Your task to perform on an android device: What's on my calendar today? Image 0: 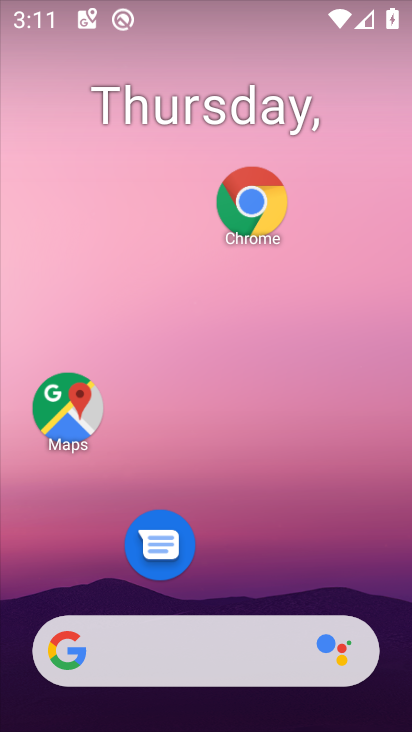
Step 0: drag from (228, 595) to (276, 200)
Your task to perform on an android device: What's on my calendar today? Image 1: 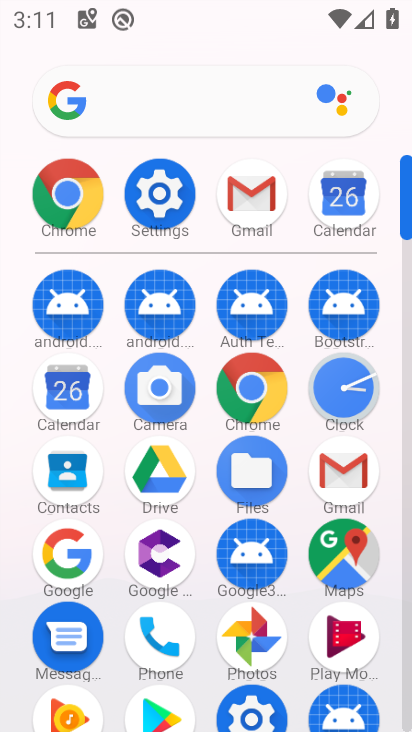
Step 1: click (327, 194)
Your task to perform on an android device: What's on my calendar today? Image 2: 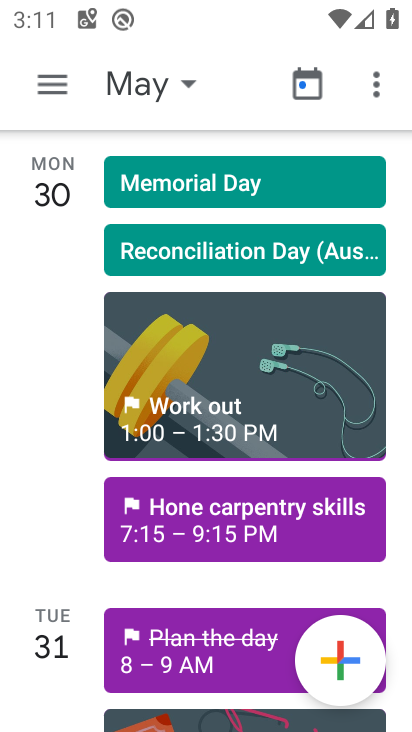
Step 2: click (165, 79)
Your task to perform on an android device: What's on my calendar today? Image 3: 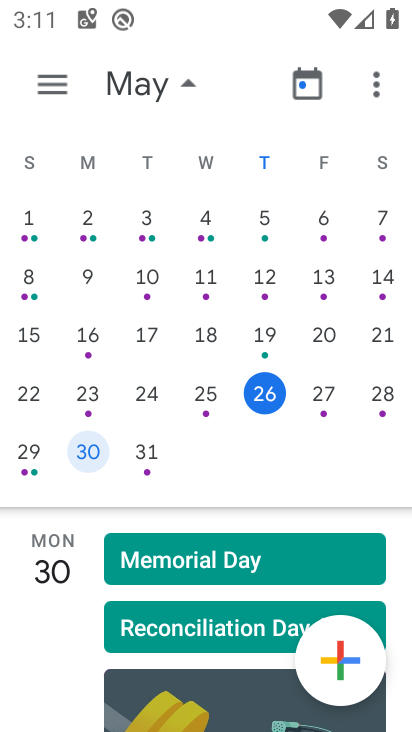
Step 3: click (256, 393)
Your task to perform on an android device: What's on my calendar today? Image 4: 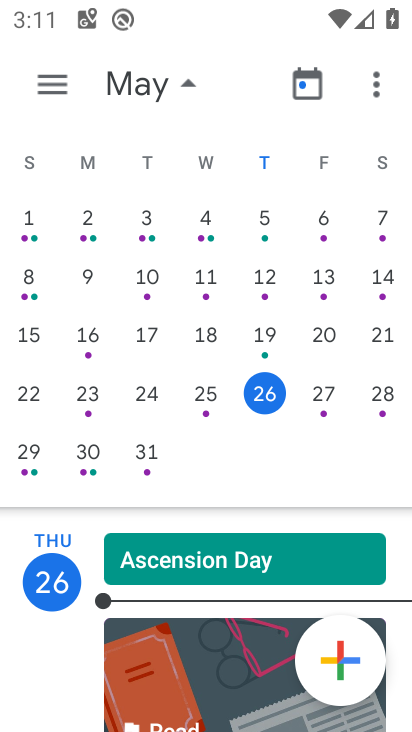
Step 4: click (217, 556)
Your task to perform on an android device: What's on my calendar today? Image 5: 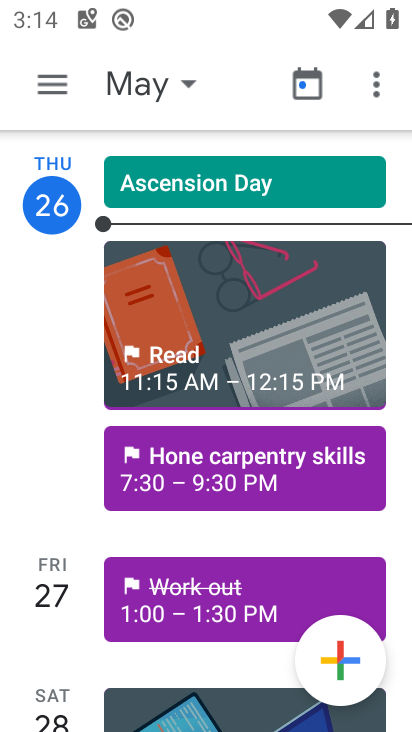
Step 5: task complete